Your task to perform on an android device: see tabs open on other devices in the chrome app Image 0: 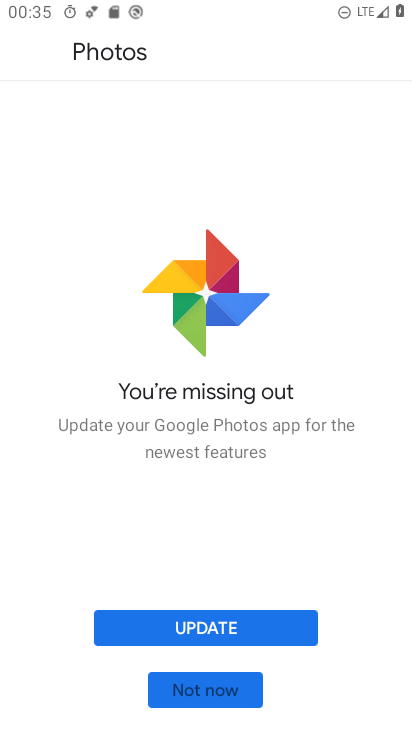
Step 0: press home button
Your task to perform on an android device: see tabs open on other devices in the chrome app Image 1: 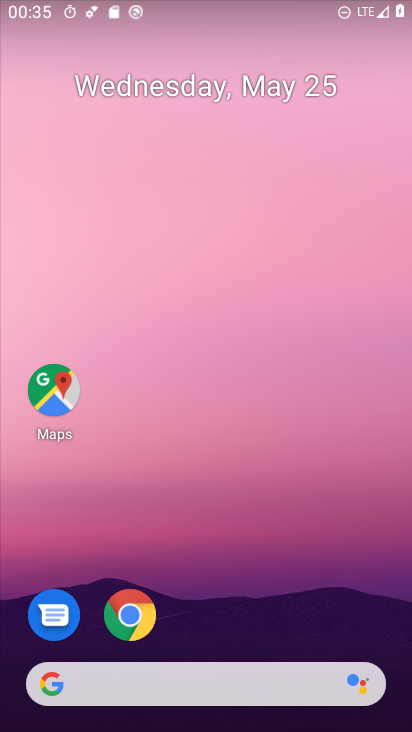
Step 1: drag from (276, 702) to (219, 239)
Your task to perform on an android device: see tabs open on other devices in the chrome app Image 2: 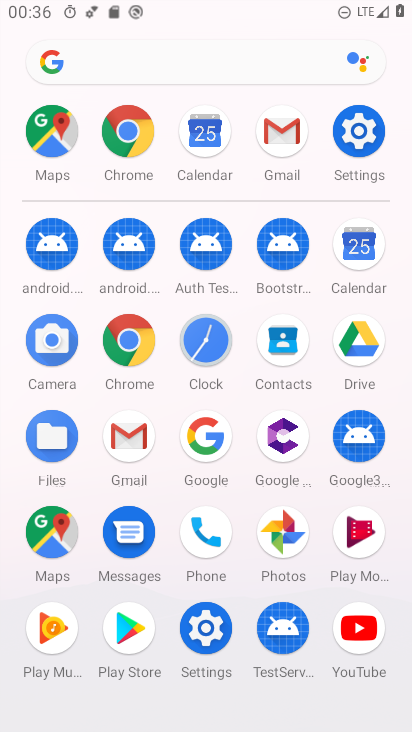
Step 2: click (97, 114)
Your task to perform on an android device: see tabs open on other devices in the chrome app Image 3: 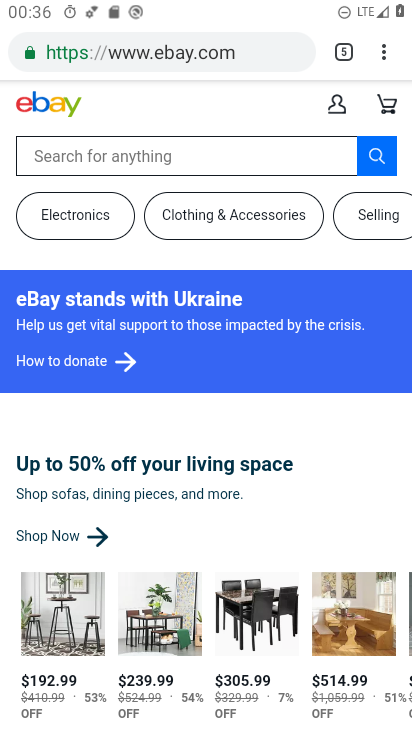
Step 3: click (336, 54)
Your task to perform on an android device: see tabs open on other devices in the chrome app Image 4: 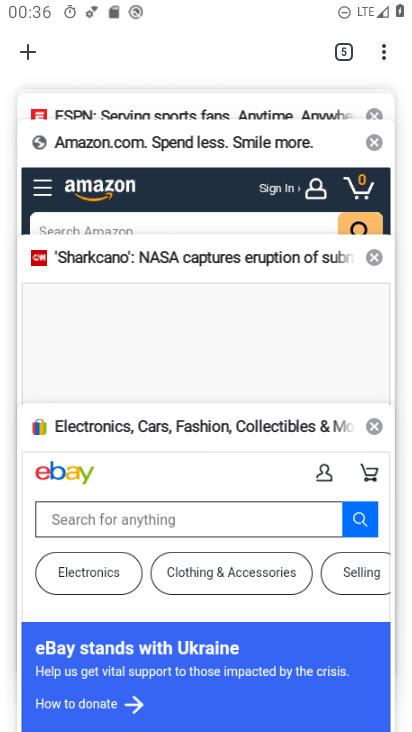
Step 4: click (37, 52)
Your task to perform on an android device: see tabs open on other devices in the chrome app Image 5: 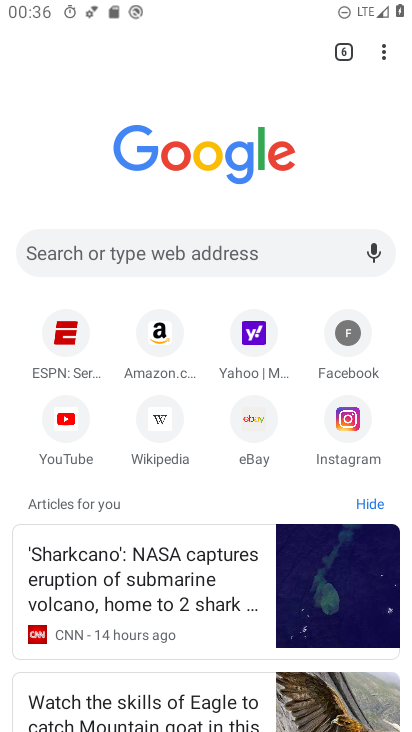
Step 5: task complete